Your task to perform on an android device: Search for the new Apple Watch on Best Buy Image 0: 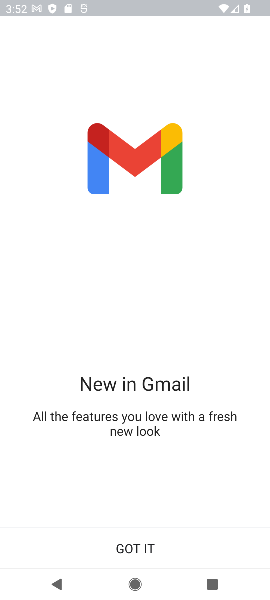
Step 0: press home button
Your task to perform on an android device: Search for the new Apple Watch on Best Buy Image 1: 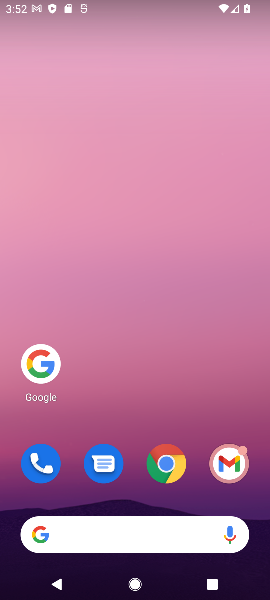
Step 1: click (30, 361)
Your task to perform on an android device: Search for the new Apple Watch on Best Buy Image 2: 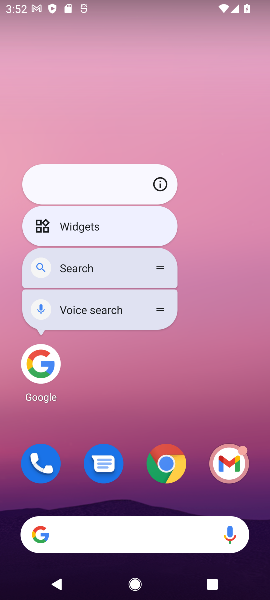
Step 2: click (44, 352)
Your task to perform on an android device: Search for the new Apple Watch on Best Buy Image 3: 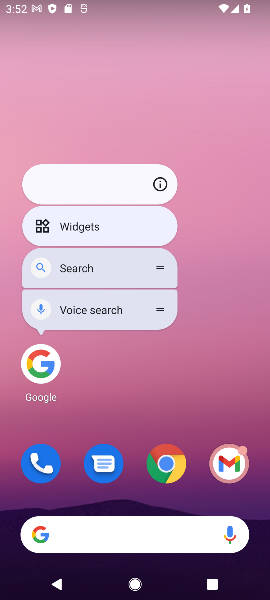
Step 3: click (34, 360)
Your task to perform on an android device: Search for the new Apple Watch on Best Buy Image 4: 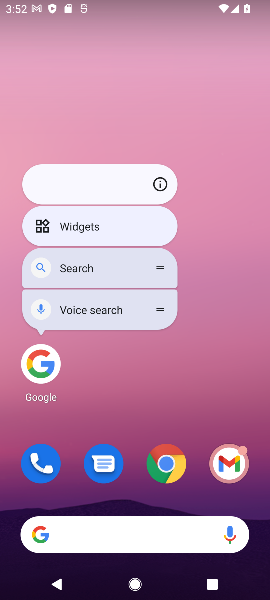
Step 4: click (43, 360)
Your task to perform on an android device: Search for the new Apple Watch on Best Buy Image 5: 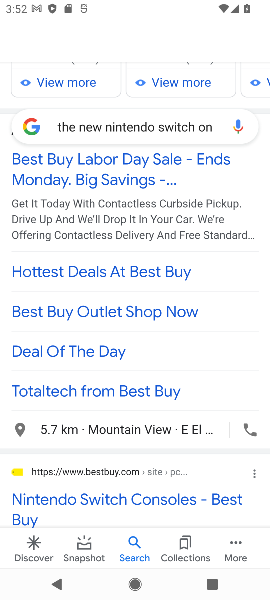
Step 5: click (181, 123)
Your task to perform on an android device: Search for the new Apple Watch on Best Buy Image 6: 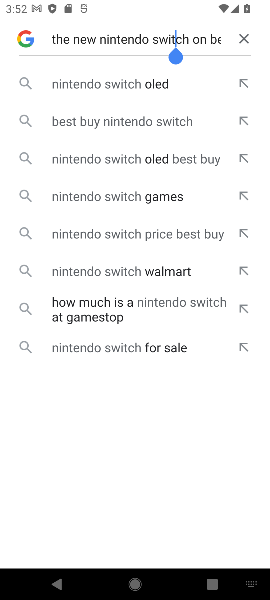
Step 6: click (240, 28)
Your task to perform on an android device: Search for the new Apple Watch on Best Buy Image 7: 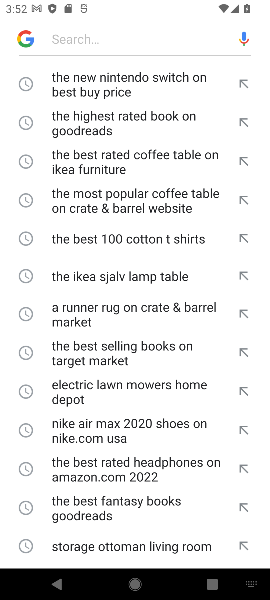
Step 7: click (130, 36)
Your task to perform on an android device: Search for the new Apple Watch on Best Buy Image 8: 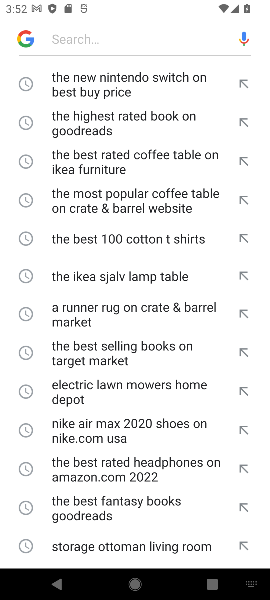
Step 8: type " the new Apple Watch on Best Buy "
Your task to perform on an android device: Search for the new Apple Watch on Best Buy Image 9: 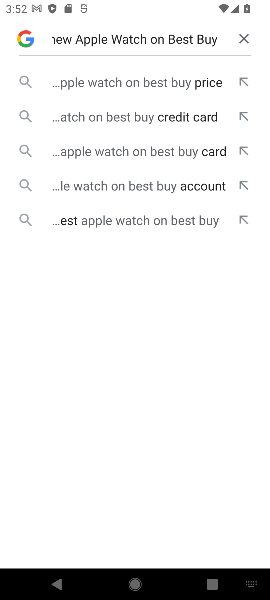
Step 9: click (106, 87)
Your task to perform on an android device: Search for the new Apple Watch on Best Buy Image 10: 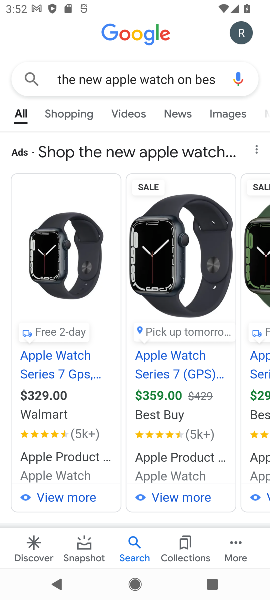
Step 10: drag from (121, 486) to (139, 360)
Your task to perform on an android device: Search for the new Apple Watch on Best Buy Image 11: 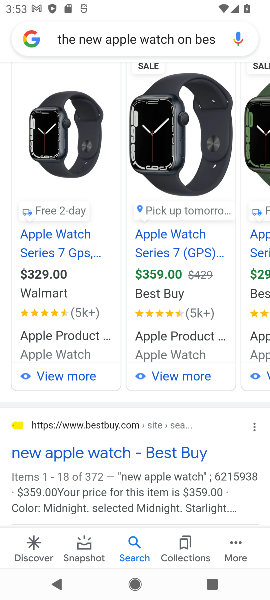
Step 11: click (152, 450)
Your task to perform on an android device: Search for the new Apple Watch on Best Buy Image 12: 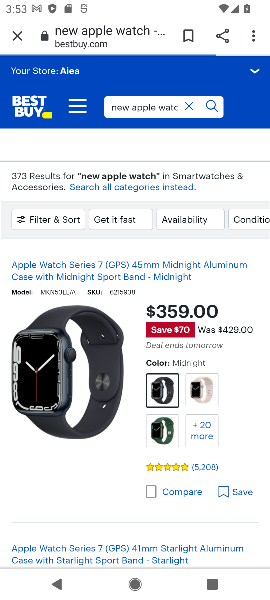
Step 12: task complete